Your task to perform on an android device: Check the weather Image 0: 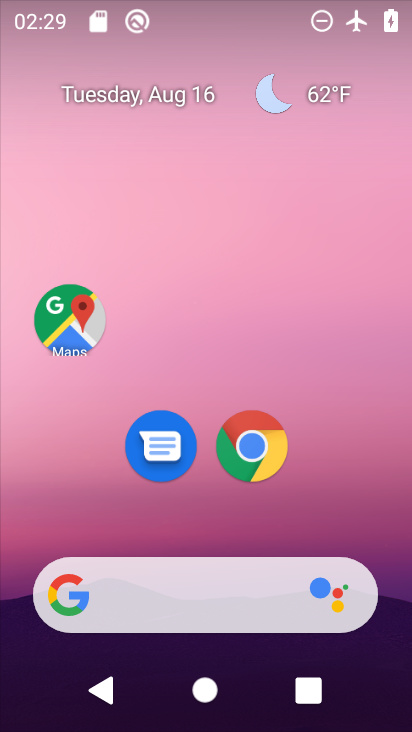
Step 0: press home button
Your task to perform on an android device: Check the weather Image 1: 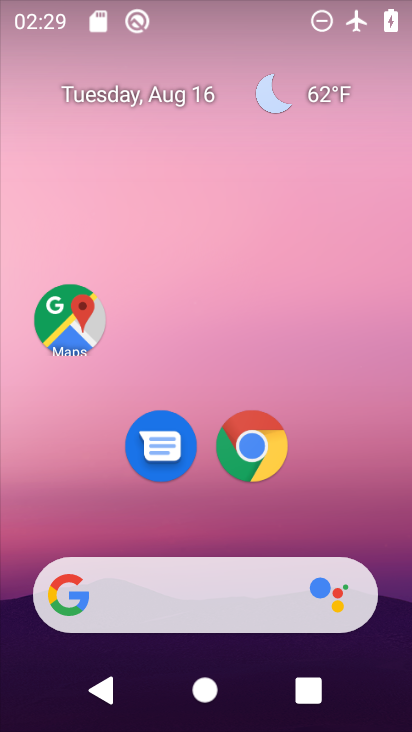
Step 1: click (326, 87)
Your task to perform on an android device: Check the weather Image 2: 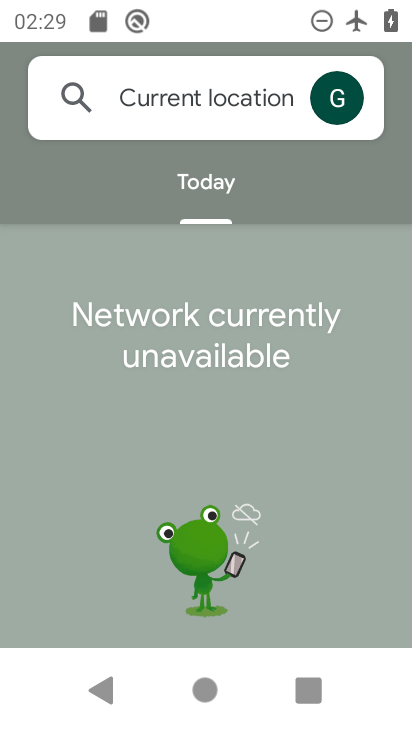
Step 2: drag from (233, 12) to (239, 562)
Your task to perform on an android device: Check the weather Image 3: 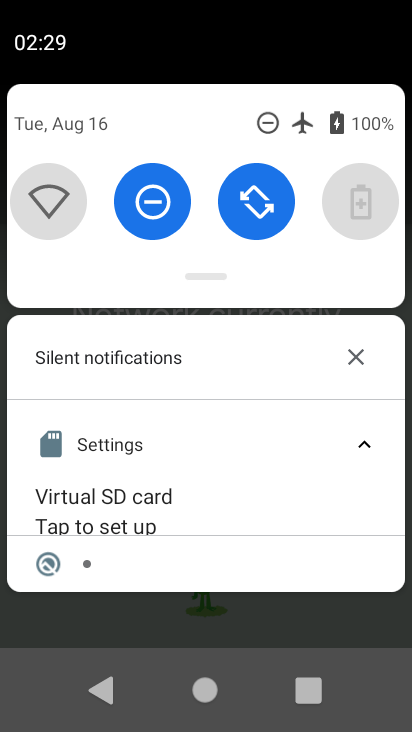
Step 3: drag from (257, 282) to (259, 721)
Your task to perform on an android device: Check the weather Image 4: 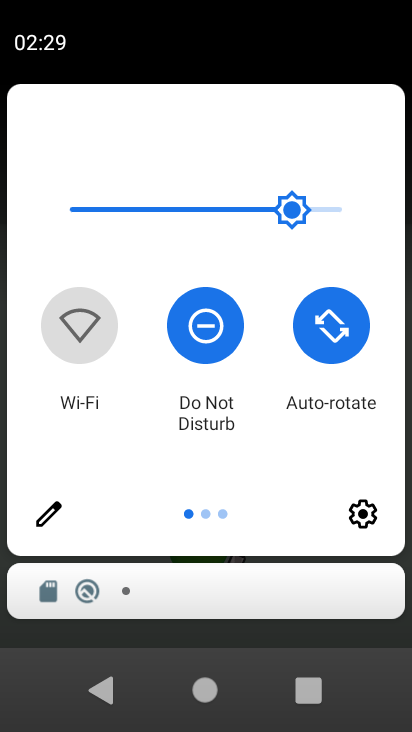
Step 4: drag from (339, 376) to (2, 327)
Your task to perform on an android device: Check the weather Image 5: 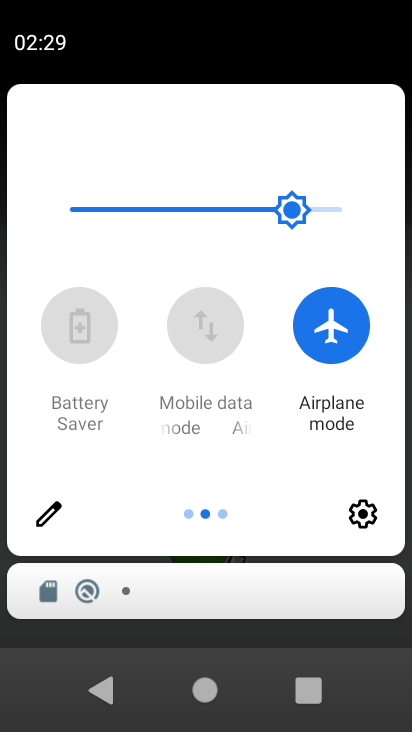
Step 5: click (325, 323)
Your task to perform on an android device: Check the weather Image 6: 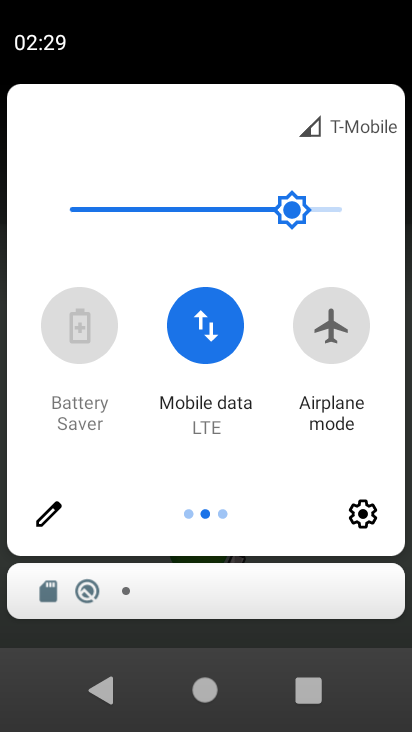
Step 6: task complete